Your task to perform on an android device: Go to CNN.com Image 0: 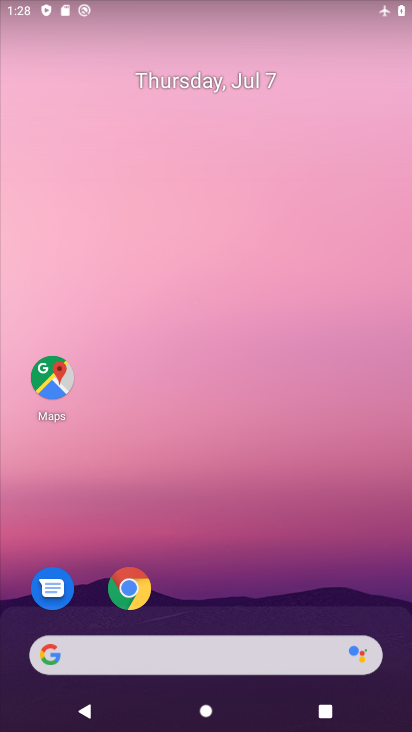
Step 0: drag from (202, 565) to (279, 36)
Your task to perform on an android device: Go to CNN.com Image 1: 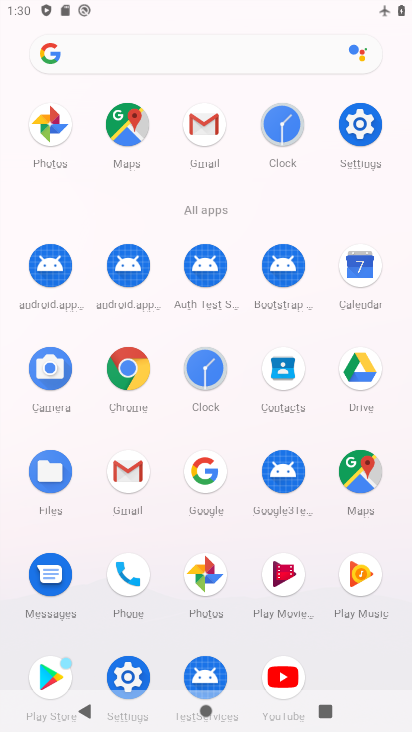
Step 1: click (119, 367)
Your task to perform on an android device: Go to CNN.com Image 2: 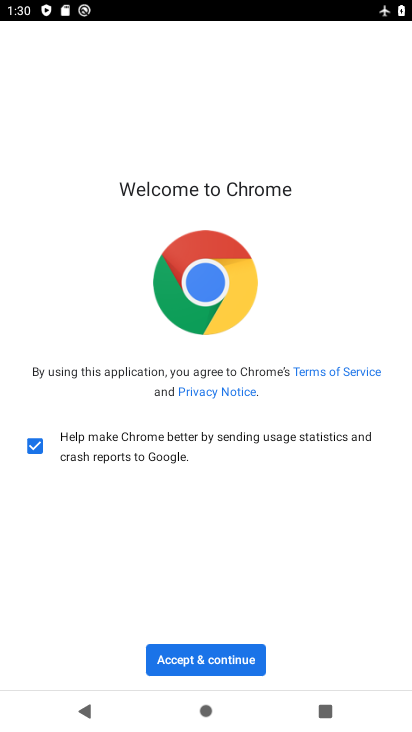
Step 2: click (195, 653)
Your task to perform on an android device: Go to CNN.com Image 3: 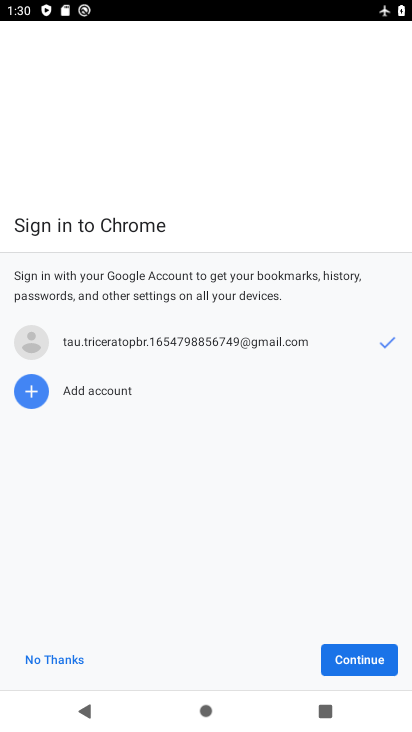
Step 3: click (337, 659)
Your task to perform on an android device: Go to CNN.com Image 4: 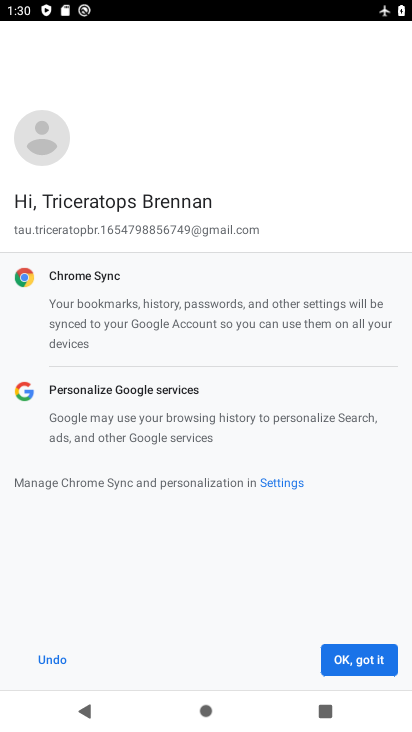
Step 4: click (333, 659)
Your task to perform on an android device: Go to CNN.com Image 5: 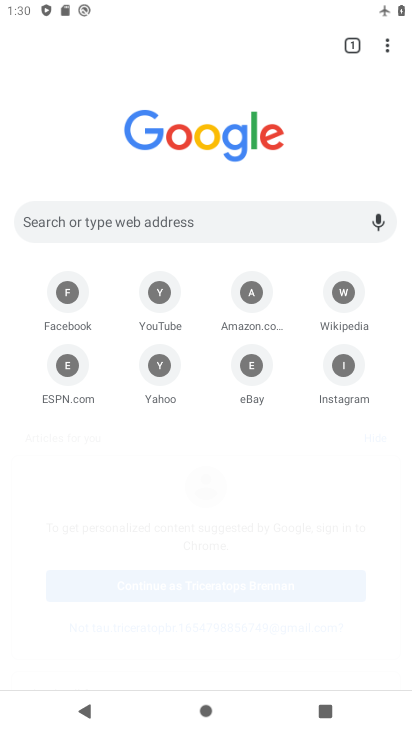
Step 5: click (92, 53)
Your task to perform on an android device: Go to CNN.com Image 6: 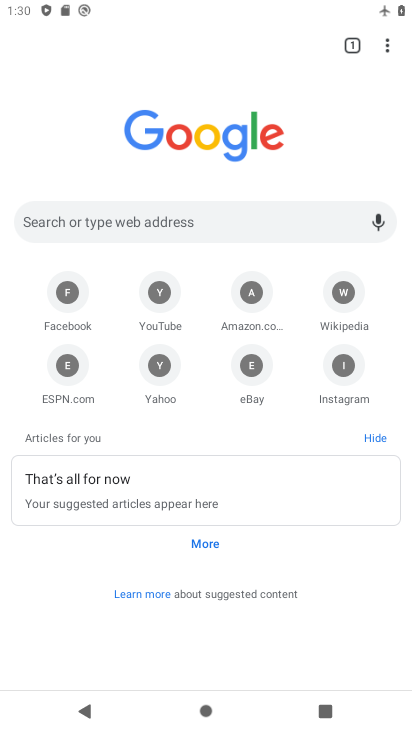
Step 6: click (119, 228)
Your task to perform on an android device: Go to CNN.com Image 7: 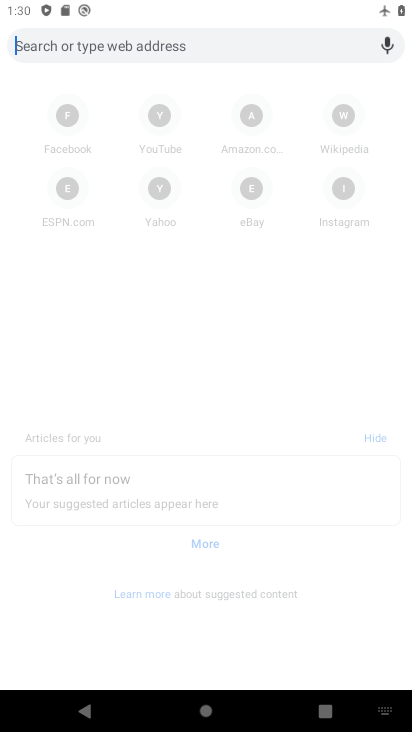
Step 7: type "cnn.com"
Your task to perform on an android device: Go to CNN.com Image 8: 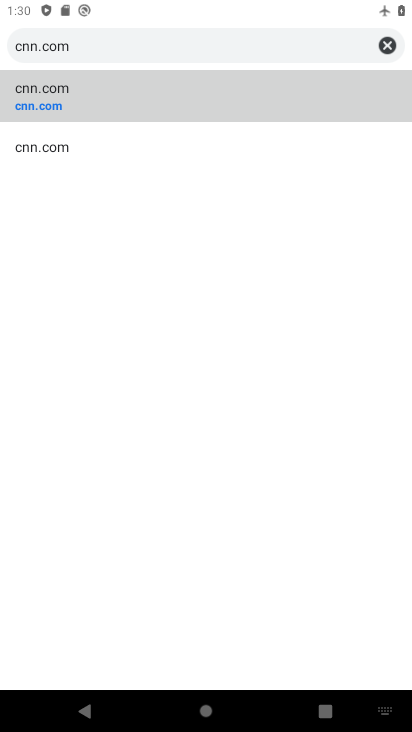
Step 8: click (120, 99)
Your task to perform on an android device: Go to CNN.com Image 9: 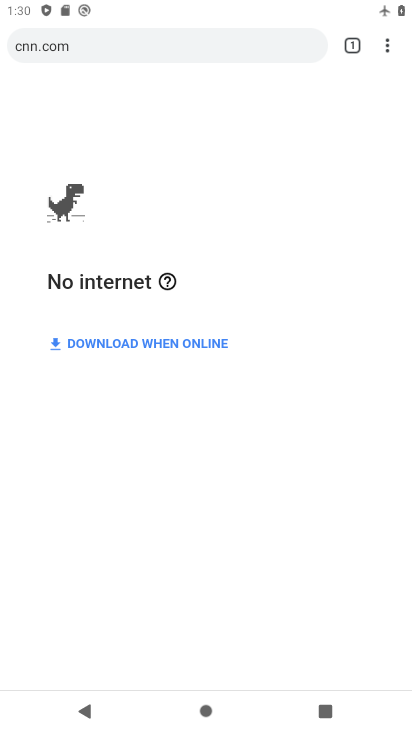
Step 9: drag from (336, 7) to (305, 617)
Your task to perform on an android device: Go to CNN.com Image 10: 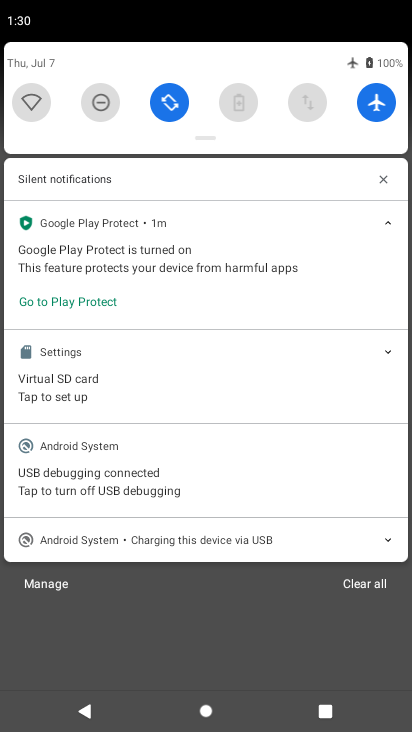
Step 10: click (380, 94)
Your task to perform on an android device: Go to CNN.com Image 11: 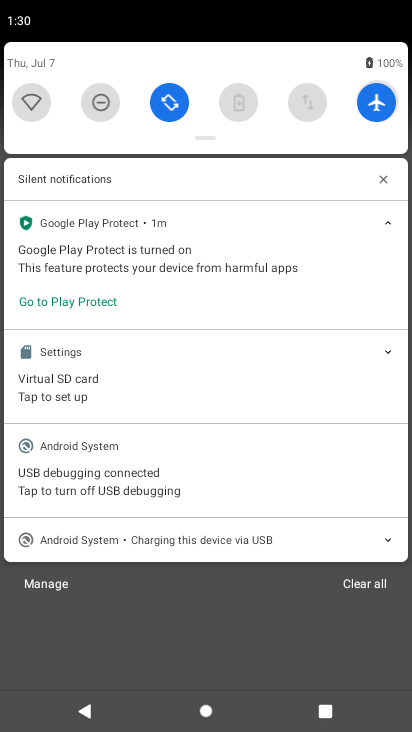
Step 11: click (154, 622)
Your task to perform on an android device: Go to CNN.com Image 12: 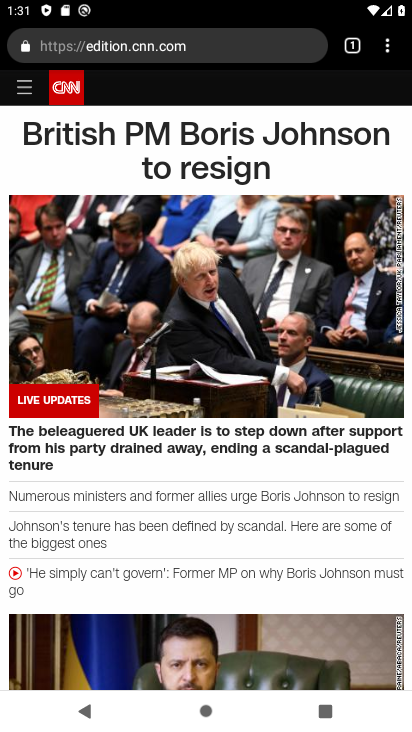
Step 12: task complete